Your task to perform on an android device: check google app version Image 0: 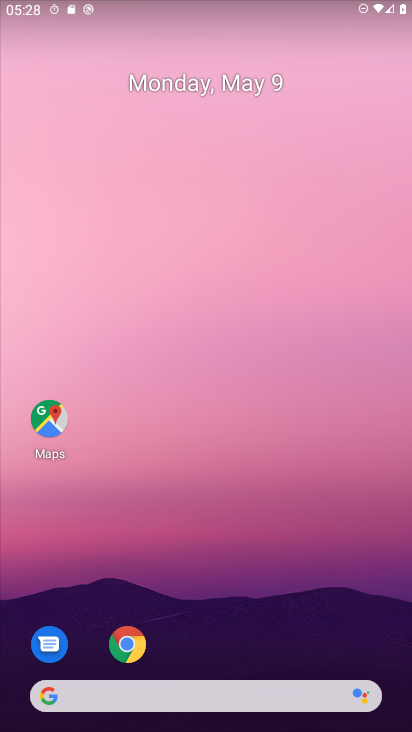
Step 0: drag from (231, 621) to (152, 17)
Your task to perform on an android device: check google app version Image 1: 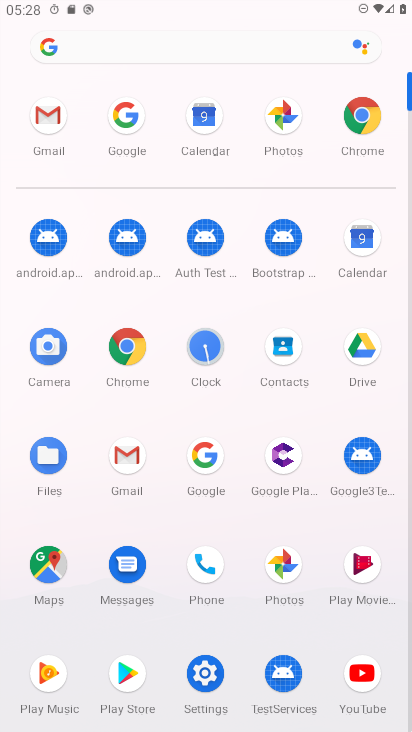
Step 1: click (122, 115)
Your task to perform on an android device: check google app version Image 2: 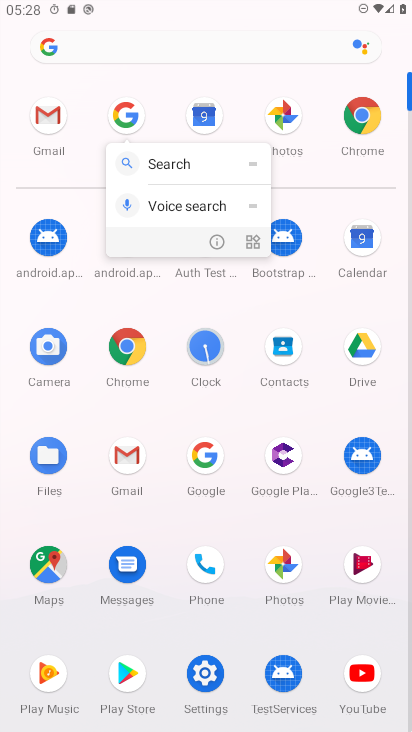
Step 2: click (221, 240)
Your task to perform on an android device: check google app version Image 3: 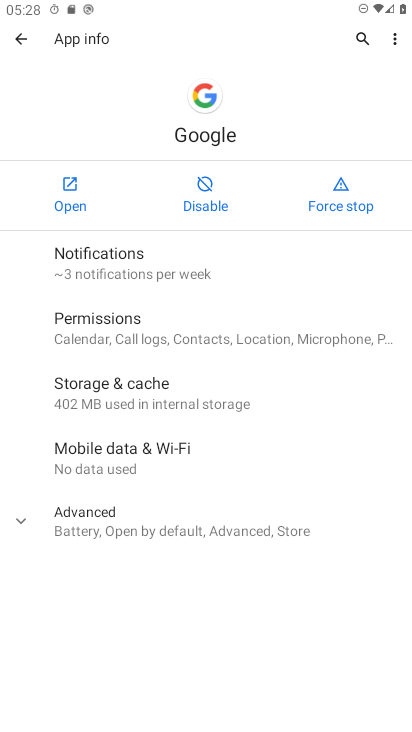
Step 3: click (114, 528)
Your task to perform on an android device: check google app version Image 4: 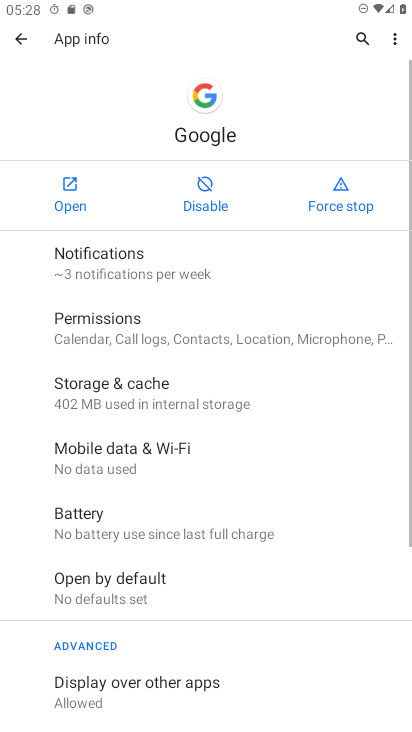
Step 4: task complete